Your task to perform on an android device: What's the weather going to be tomorrow? Image 0: 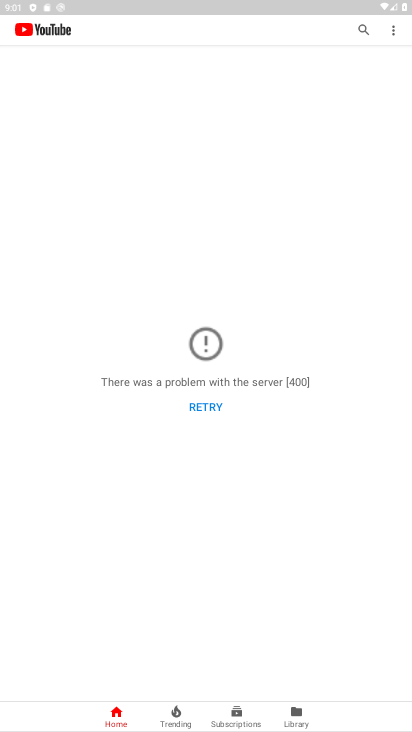
Step 0: press home button
Your task to perform on an android device: What's the weather going to be tomorrow? Image 1: 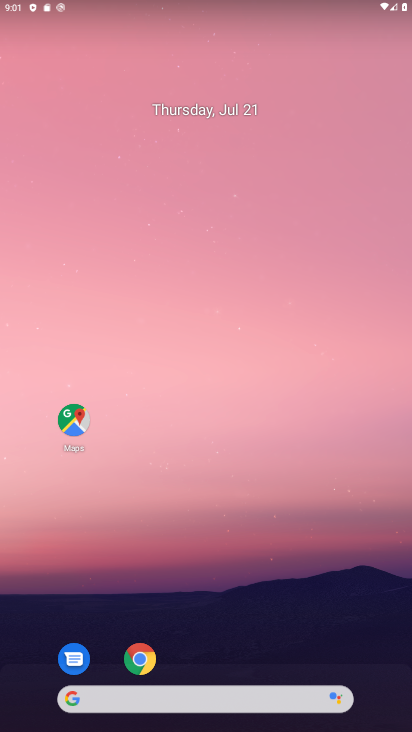
Step 1: drag from (260, 564) to (214, 183)
Your task to perform on an android device: What's the weather going to be tomorrow? Image 2: 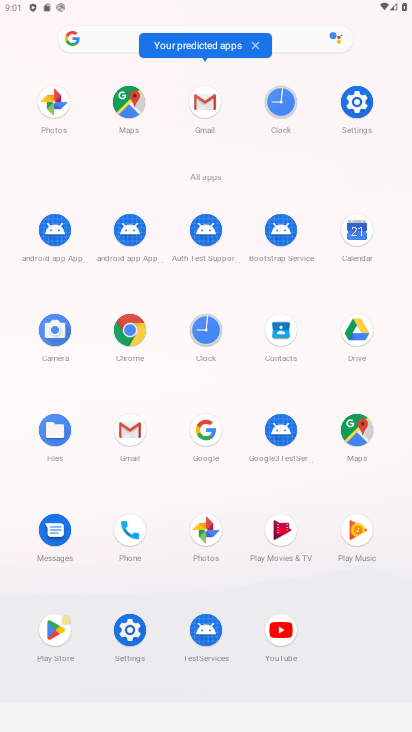
Step 2: click (138, 333)
Your task to perform on an android device: What's the weather going to be tomorrow? Image 3: 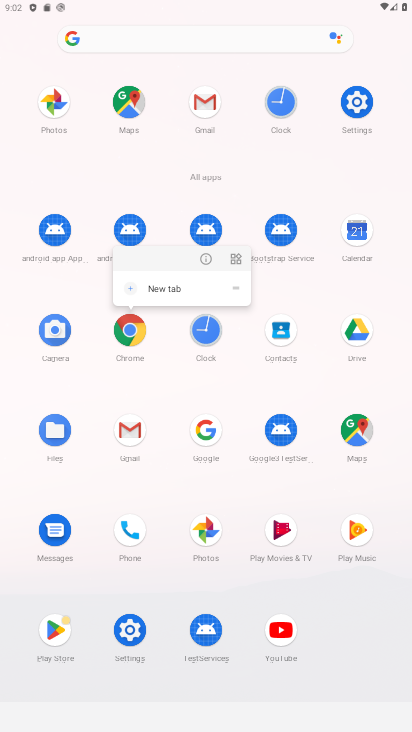
Step 3: click (119, 340)
Your task to perform on an android device: What's the weather going to be tomorrow? Image 4: 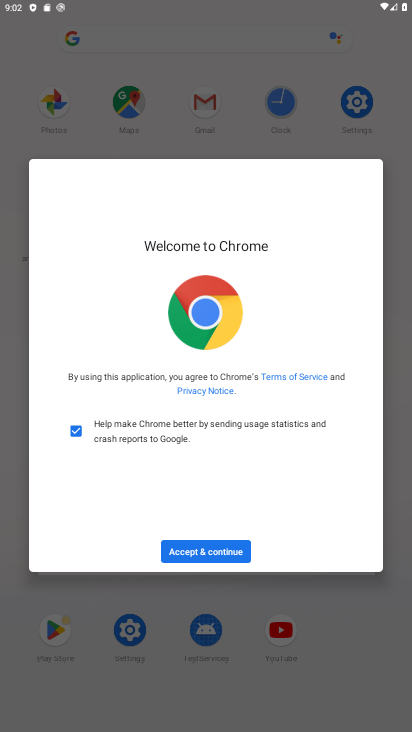
Step 4: click (213, 549)
Your task to perform on an android device: What's the weather going to be tomorrow? Image 5: 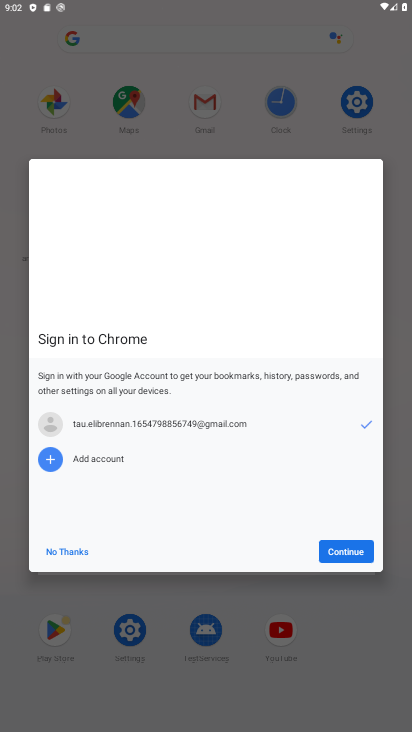
Step 5: click (53, 551)
Your task to perform on an android device: What's the weather going to be tomorrow? Image 6: 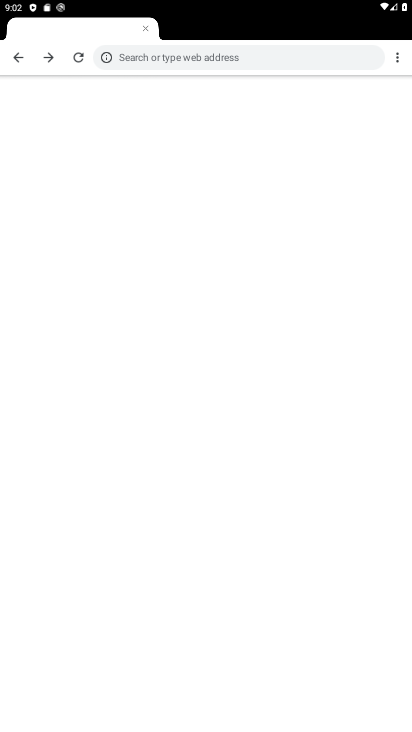
Step 6: click (190, 55)
Your task to perform on an android device: What's the weather going to be tomorrow? Image 7: 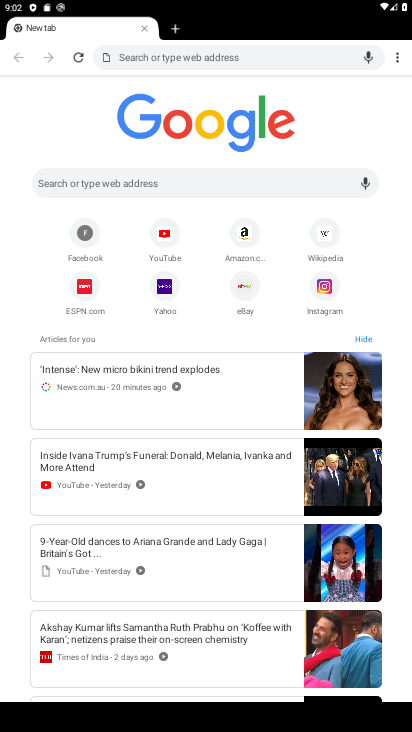
Step 7: type "weather going to be tomorrow"
Your task to perform on an android device: What's the weather going to be tomorrow? Image 8: 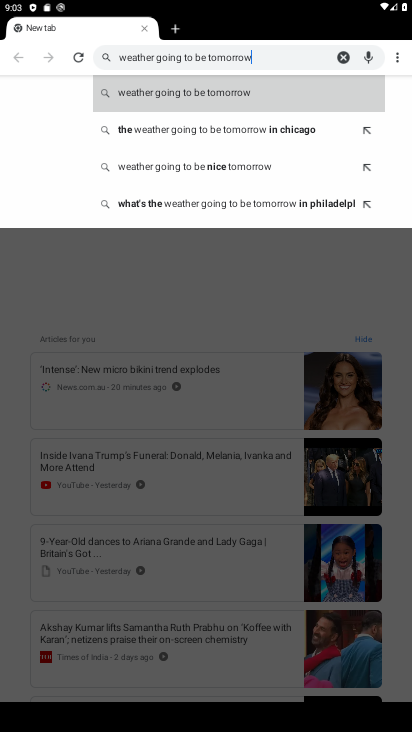
Step 8: click (142, 83)
Your task to perform on an android device: What's the weather going to be tomorrow? Image 9: 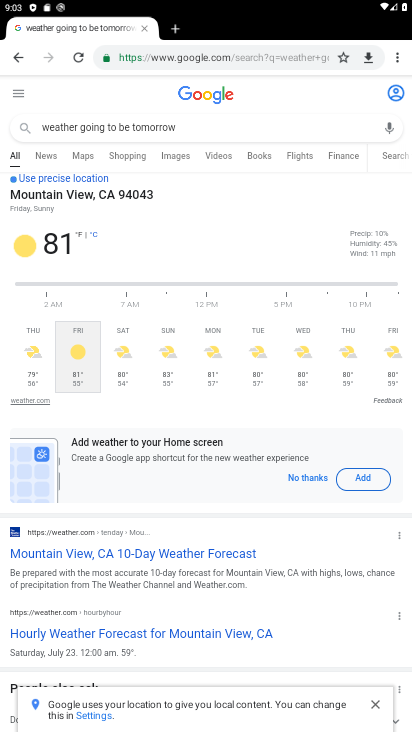
Step 9: task complete